Your task to perform on an android device: Turn on the flashlight Image 0: 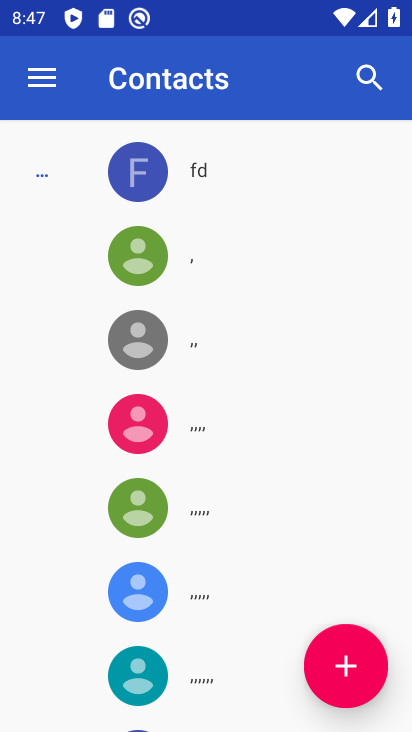
Step 0: press home button
Your task to perform on an android device: Turn on the flashlight Image 1: 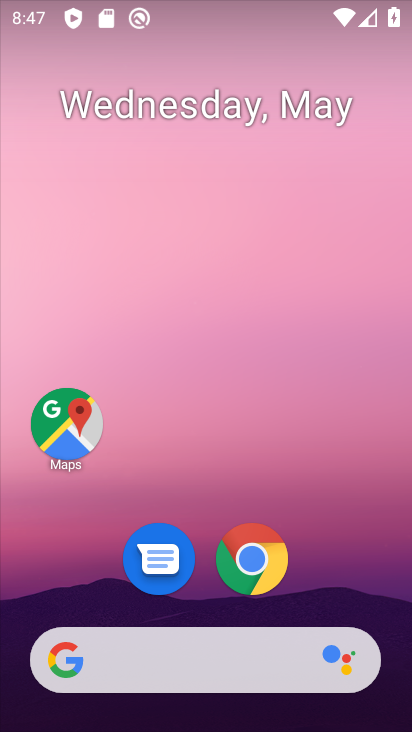
Step 1: task complete